Your task to perform on an android device: What's on my calendar today? Image 0: 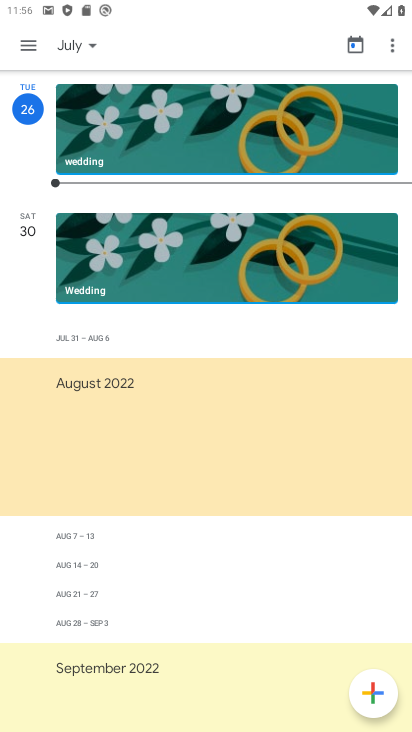
Step 0: click (29, 50)
Your task to perform on an android device: What's on my calendar today? Image 1: 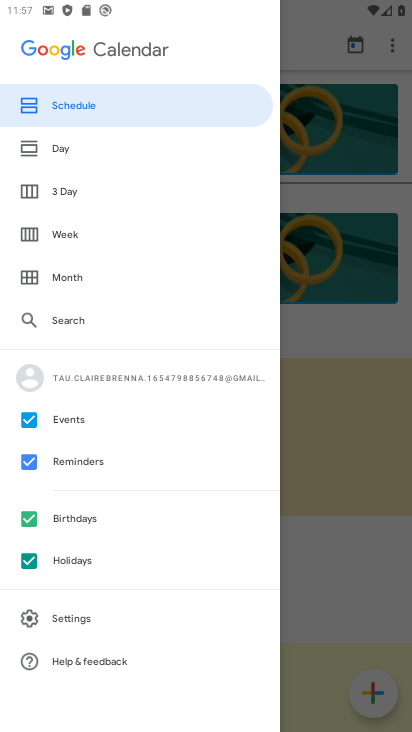
Step 1: click (58, 149)
Your task to perform on an android device: What's on my calendar today? Image 2: 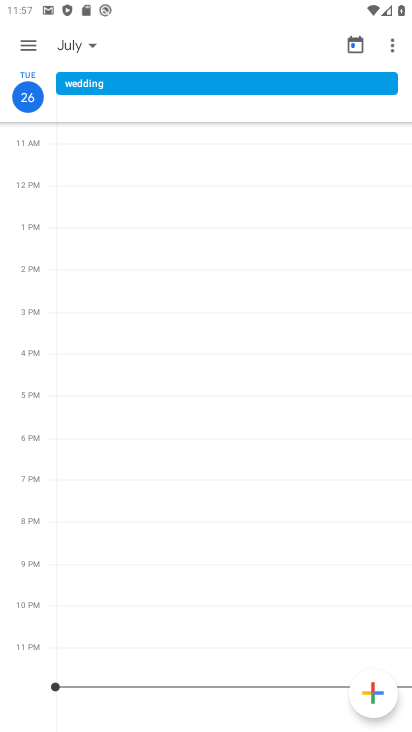
Step 2: task complete